Your task to perform on an android device: Open Google Chrome and open the bookmarks view Image 0: 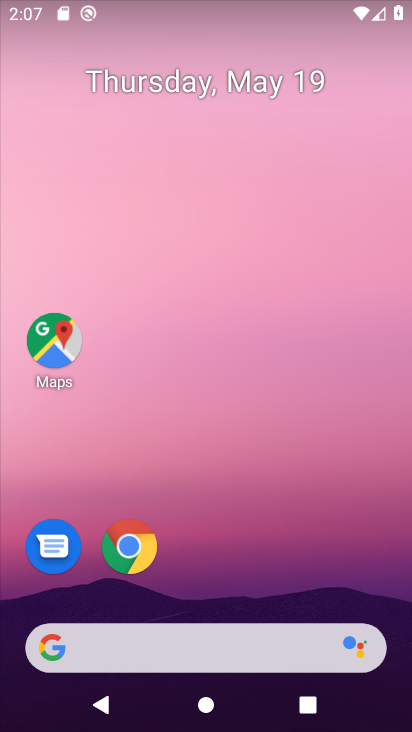
Step 0: click (129, 541)
Your task to perform on an android device: Open Google Chrome and open the bookmarks view Image 1: 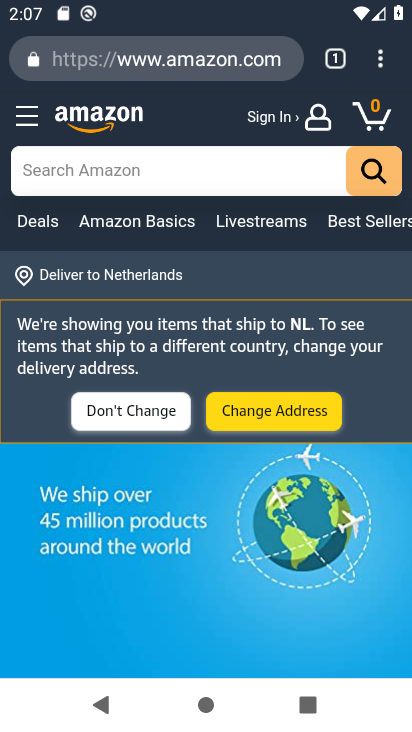
Step 1: click (383, 47)
Your task to perform on an android device: Open Google Chrome and open the bookmarks view Image 2: 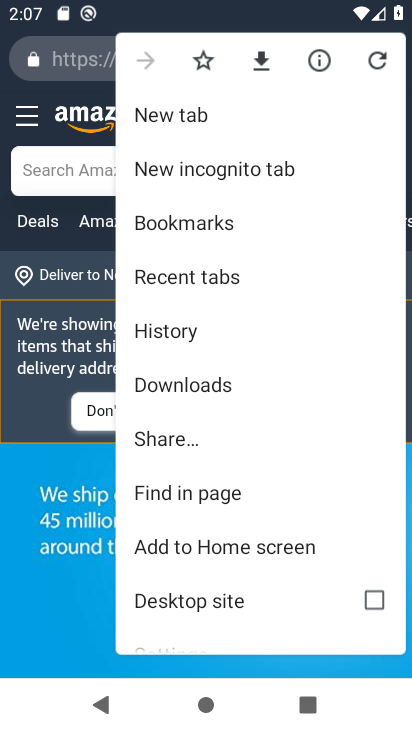
Step 2: click (225, 226)
Your task to perform on an android device: Open Google Chrome and open the bookmarks view Image 3: 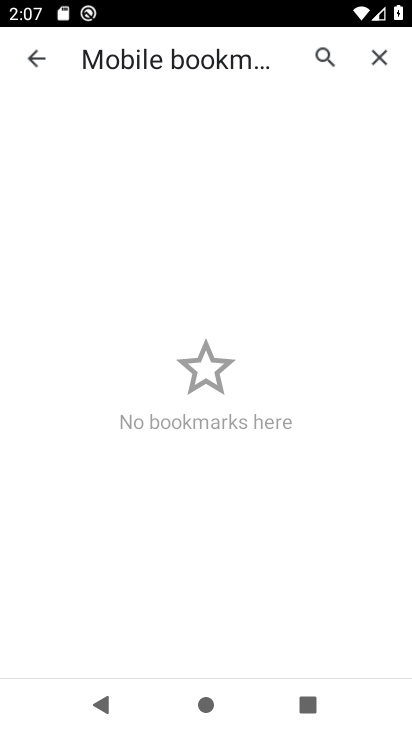
Step 3: task complete